Your task to perform on an android device: Go to privacy settings Image 0: 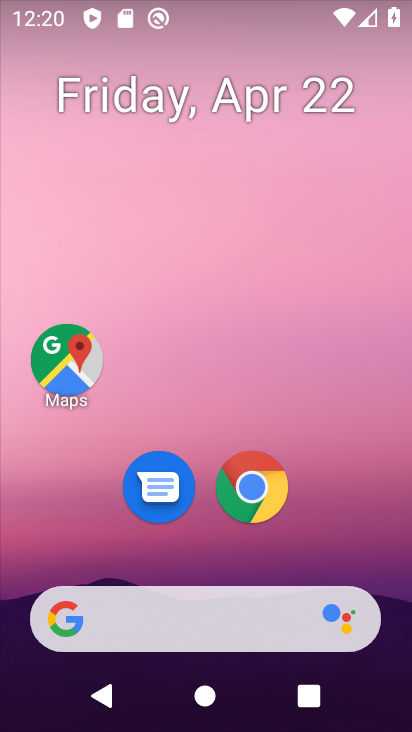
Step 0: click (250, 496)
Your task to perform on an android device: Go to privacy settings Image 1: 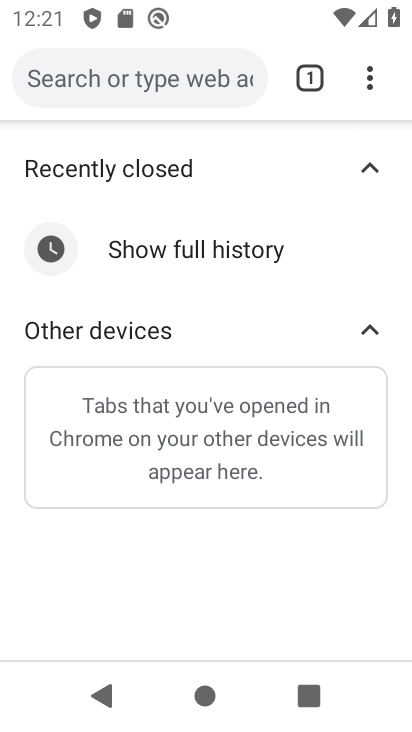
Step 1: click (366, 88)
Your task to perform on an android device: Go to privacy settings Image 2: 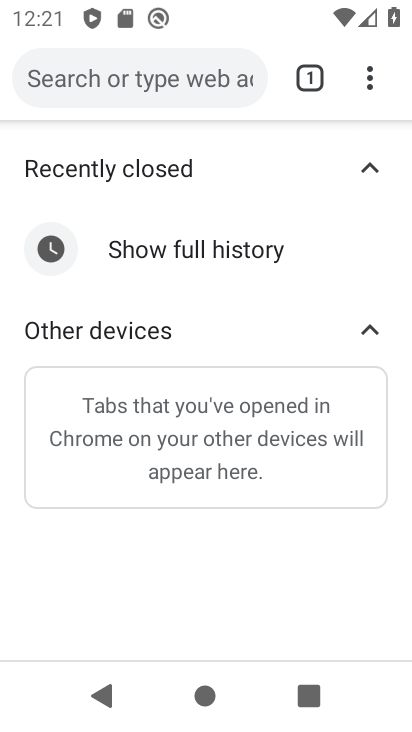
Step 2: drag from (363, 80) to (138, 556)
Your task to perform on an android device: Go to privacy settings Image 3: 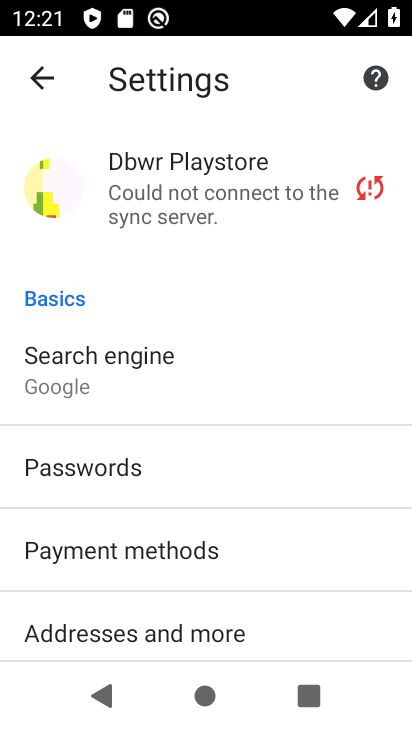
Step 3: drag from (154, 585) to (185, 240)
Your task to perform on an android device: Go to privacy settings Image 4: 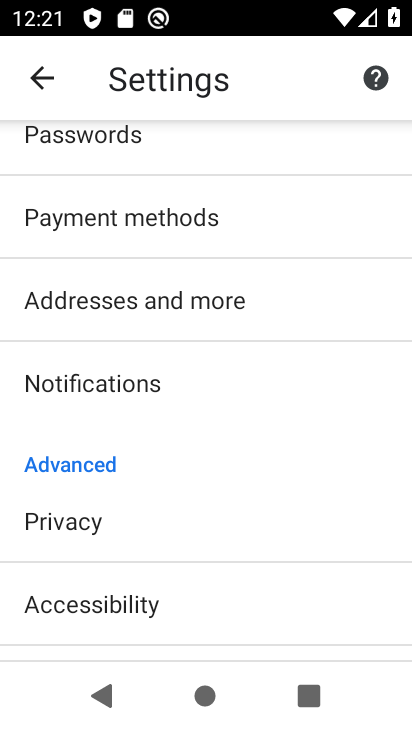
Step 4: click (132, 530)
Your task to perform on an android device: Go to privacy settings Image 5: 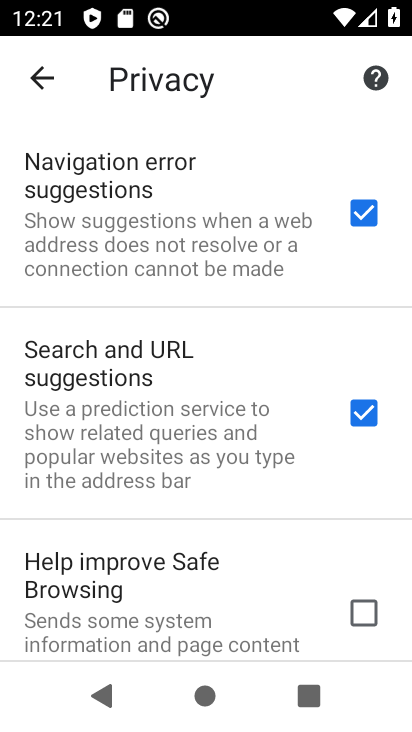
Step 5: task complete